Your task to perform on an android device: Search for pizza restaurants on Maps Image 0: 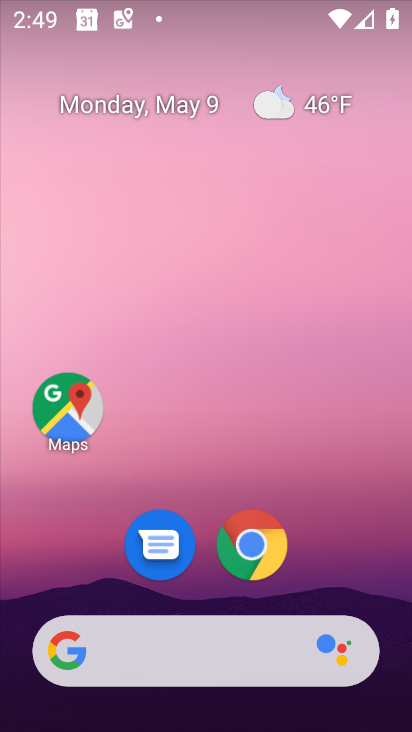
Step 0: click (53, 418)
Your task to perform on an android device: Search for pizza restaurants on Maps Image 1: 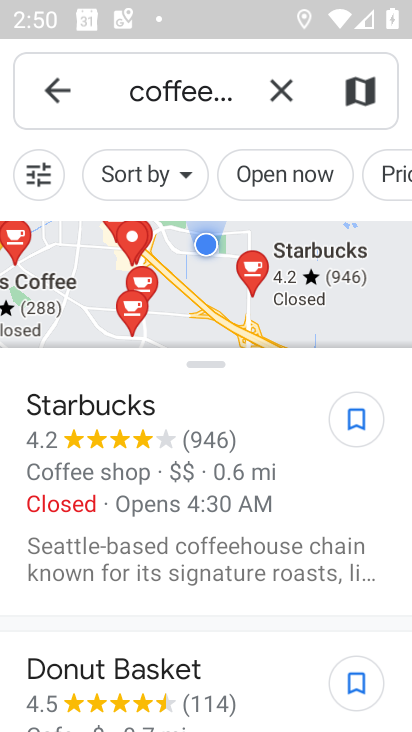
Step 1: click (288, 88)
Your task to perform on an android device: Search for pizza restaurants on Maps Image 2: 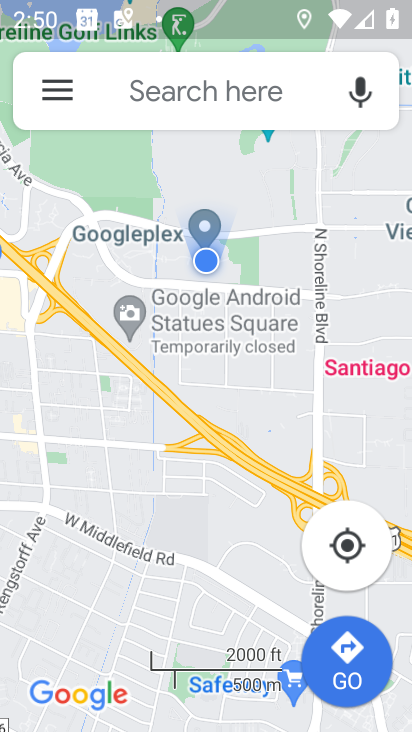
Step 2: click (203, 96)
Your task to perform on an android device: Search for pizza restaurants on Maps Image 3: 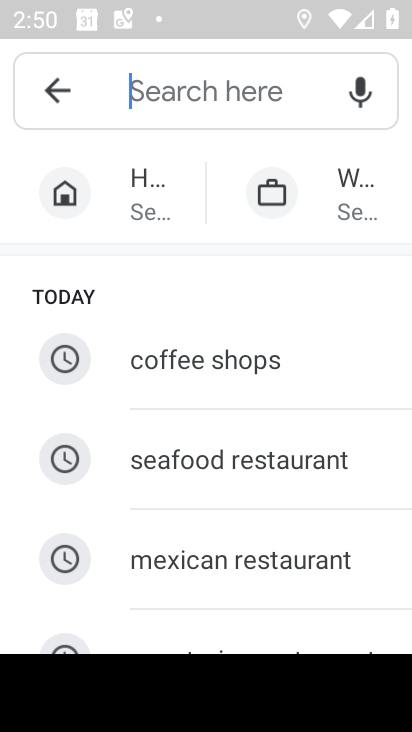
Step 3: type "pizza restaurants"
Your task to perform on an android device: Search for pizza restaurants on Maps Image 4: 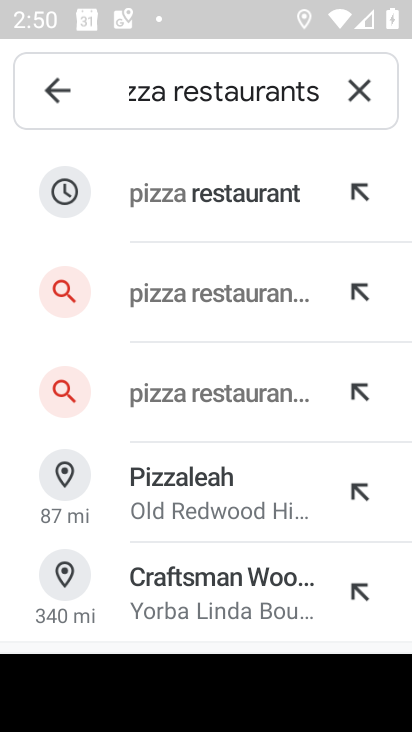
Step 4: click (204, 194)
Your task to perform on an android device: Search for pizza restaurants on Maps Image 5: 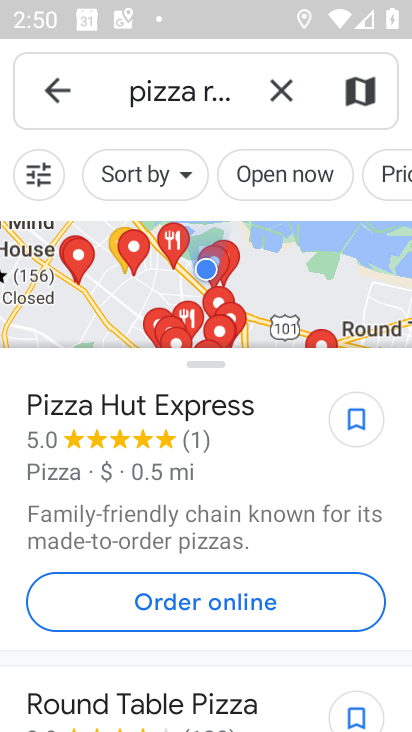
Step 5: task complete